Your task to perform on an android device: Open Wikipedia Image 0: 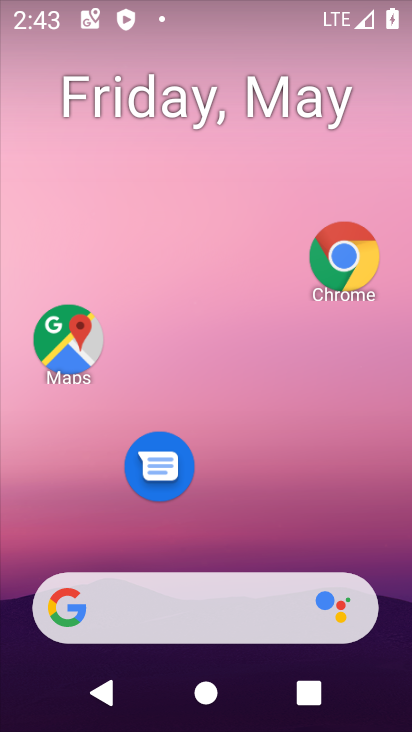
Step 0: drag from (254, 520) to (216, 160)
Your task to perform on an android device: Open Wikipedia Image 1: 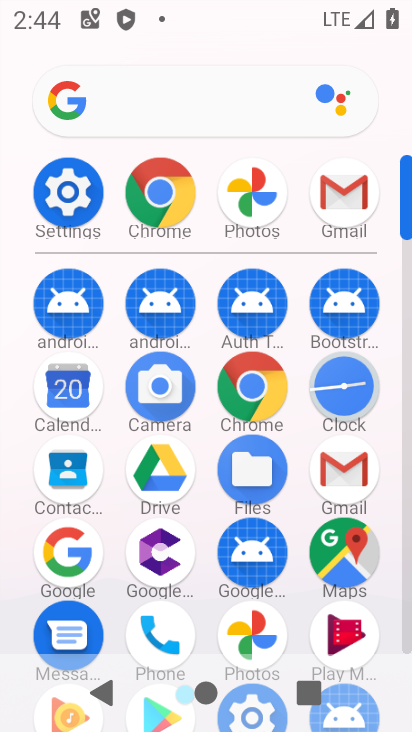
Step 1: click (241, 378)
Your task to perform on an android device: Open Wikipedia Image 2: 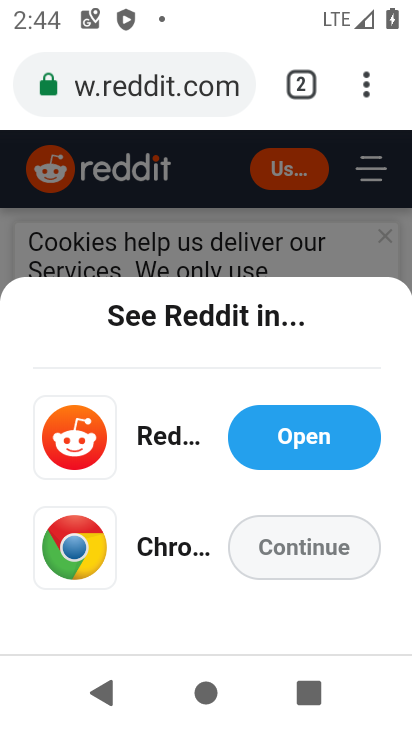
Step 2: drag from (366, 78) to (108, 169)
Your task to perform on an android device: Open Wikipedia Image 3: 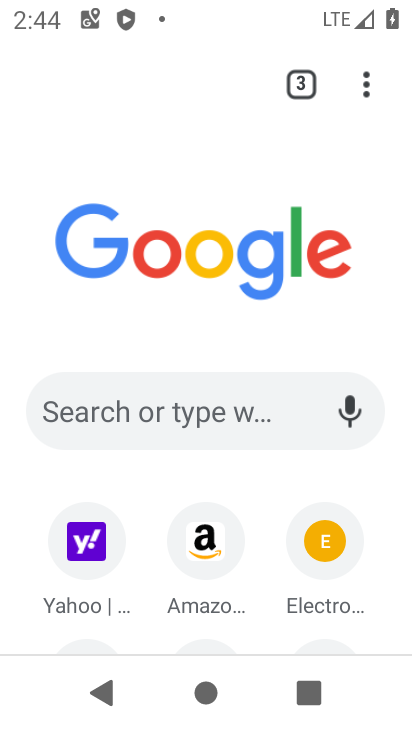
Step 3: drag from (253, 467) to (260, 111)
Your task to perform on an android device: Open Wikipedia Image 4: 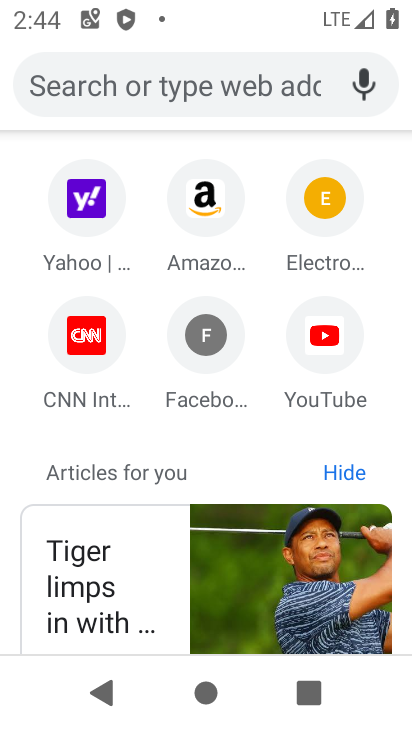
Step 4: drag from (314, 424) to (1, 394)
Your task to perform on an android device: Open Wikipedia Image 5: 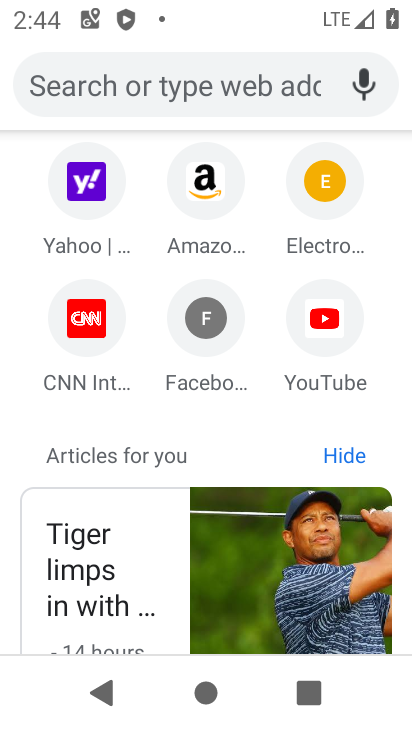
Step 5: drag from (269, 276) to (266, 110)
Your task to perform on an android device: Open Wikipedia Image 6: 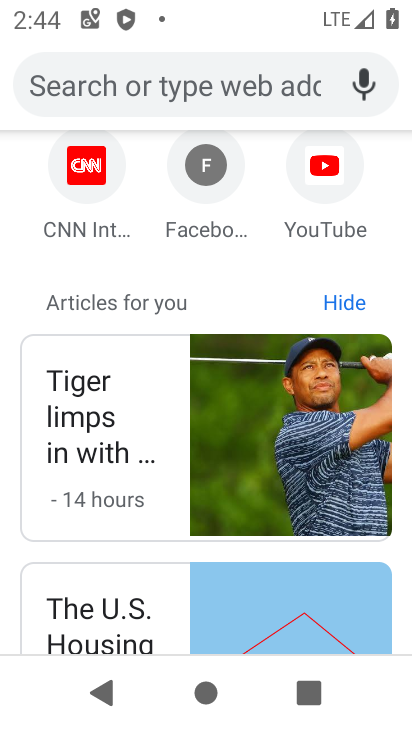
Step 6: drag from (247, 316) to (184, 712)
Your task to perform on an android device: Open Wikipedia Image 7: 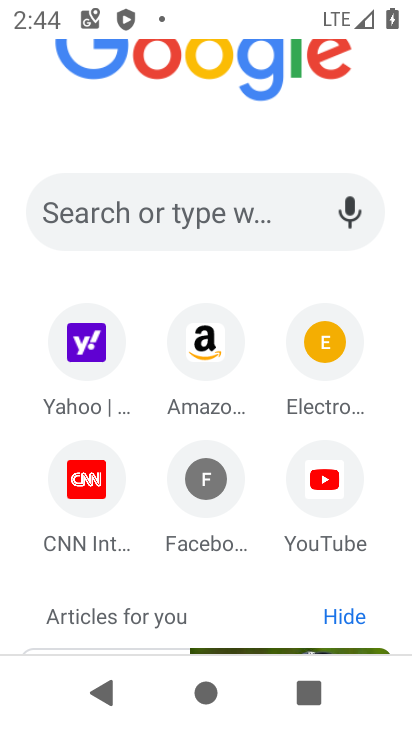
Step 7: click (179, 224)
Your task to perform on an android device: Open Wikipedia Image 8: 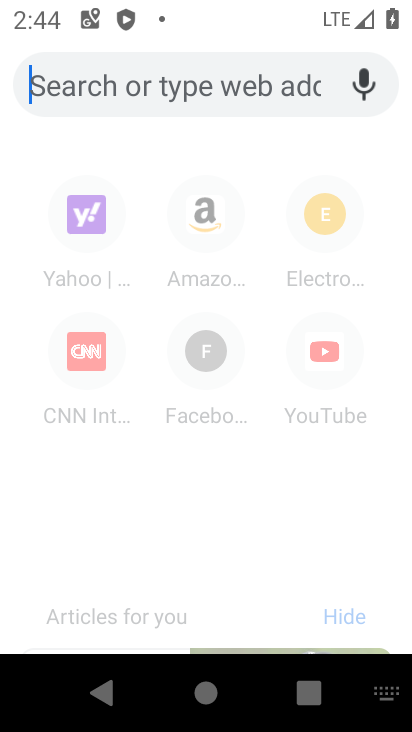
Step 8: type " Wikipedia"
Your task to perform on an android device: Open Wikipedia Image 9: 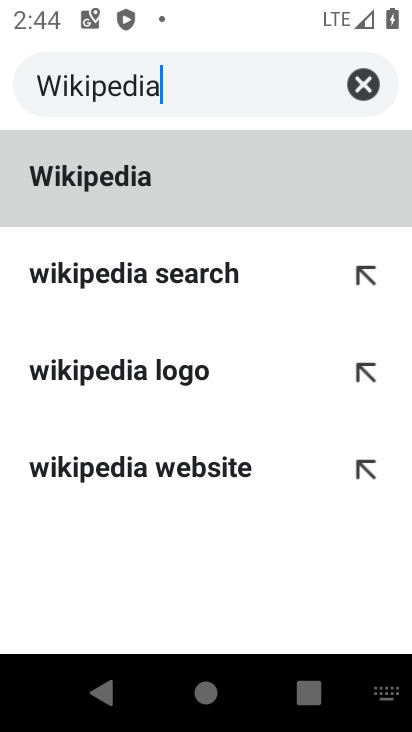
Step 9: click (89, 183)
Your task to perform on an android device: Open Wikipedia Image 10: 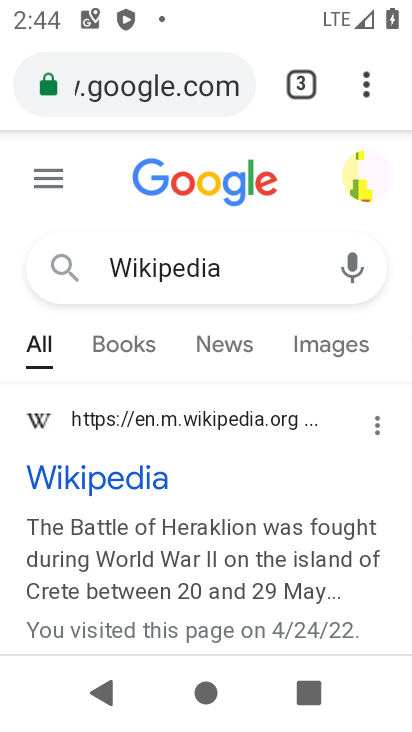
Step 10: drag from (256, 497) to (260, 141)
Your task to perform on an android device: Open Wikipedia Image 11: 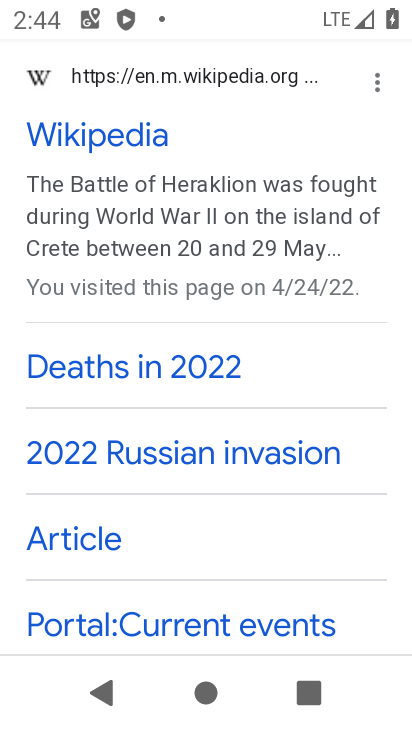
Step 11: click (96, 145)
Your task to perform on an android device: Open Wikipedia Image 12: 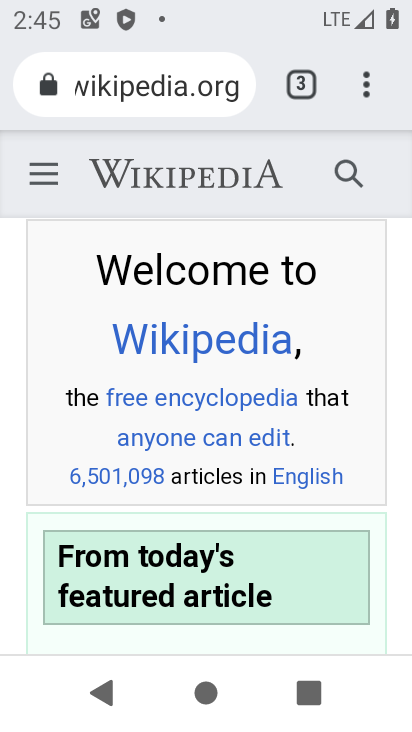
Step 12: task complete